Your task to perform on an android device: Open my contact list Image 0: 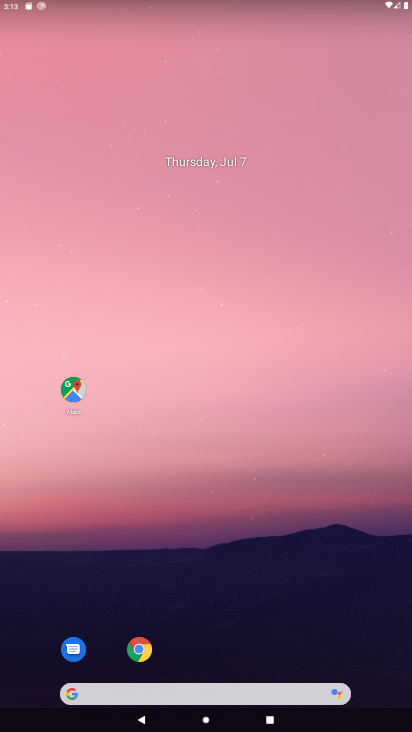
Step 0: drag from (187, 633) to (246, 54)
Your task to perform on an android device: Open my contact list Image 1: 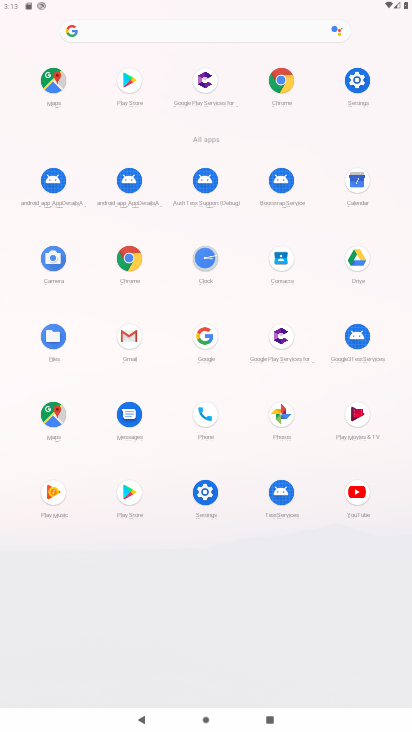
Step 1: click (276, 256)
Your task to perform on an android device: Open my contact list Image 2: 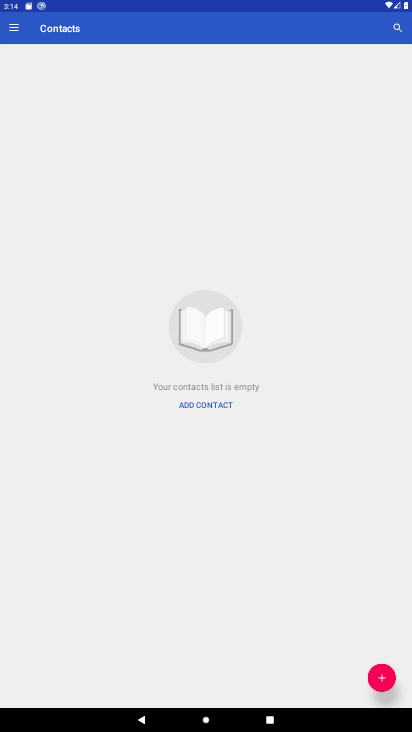
Step 2: task complete